Your task to perform on an android device: see sites visited before in the chrome app Image 0: 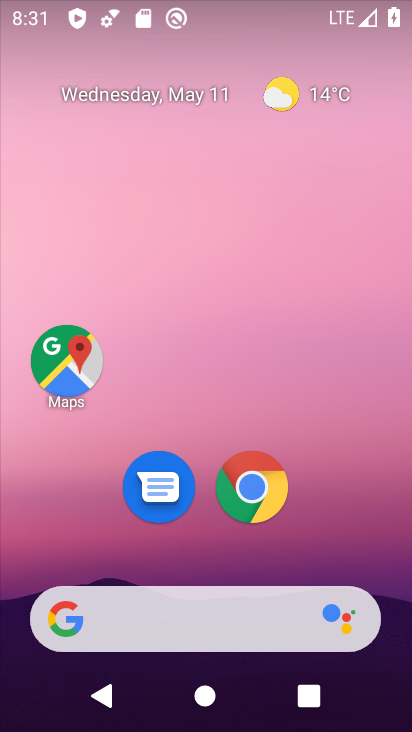
Step 0: click (260, 505)
Your task to perform on an android device: see sites visited before in the chrome app Image 1: 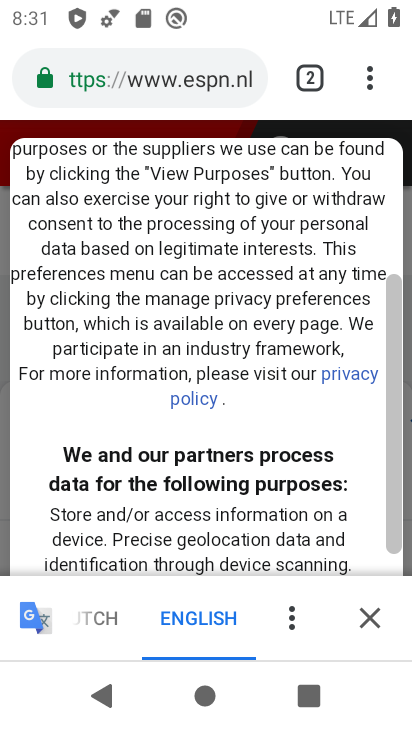
Step 1: click (367, 81)
Your task to perform on an android device: see sites visited before in the chrome app Image 2: 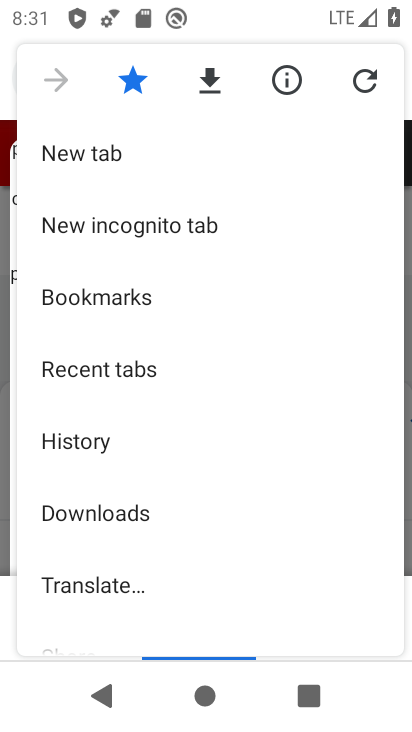
Step 2: click (104, 443)
Your task to perform on an android device: see sites visited before in the chrome app Image 3: 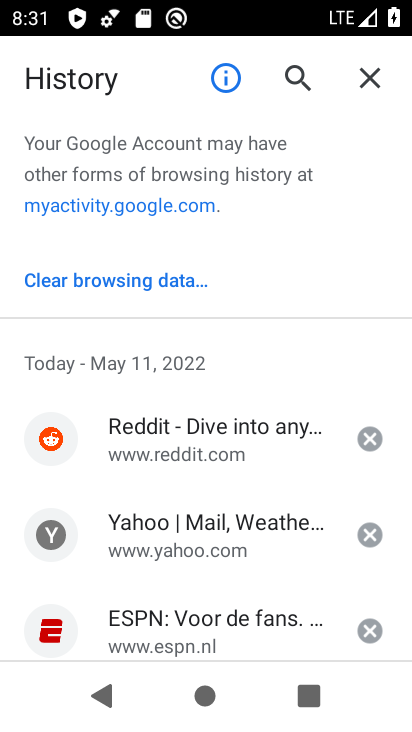
Step 3: task complete